Your task to perform on an android device: Is it going to rain tomorrow? Image 0: 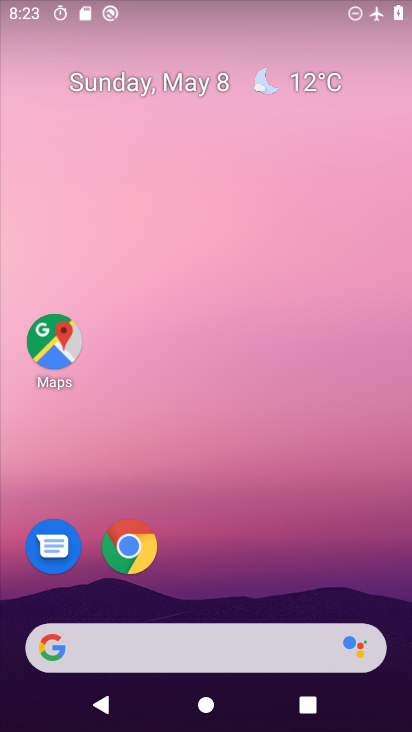
Step 0: click (323, 72)
Your task to perform on an android device: Is it going to rain tomorrow? Image 1: 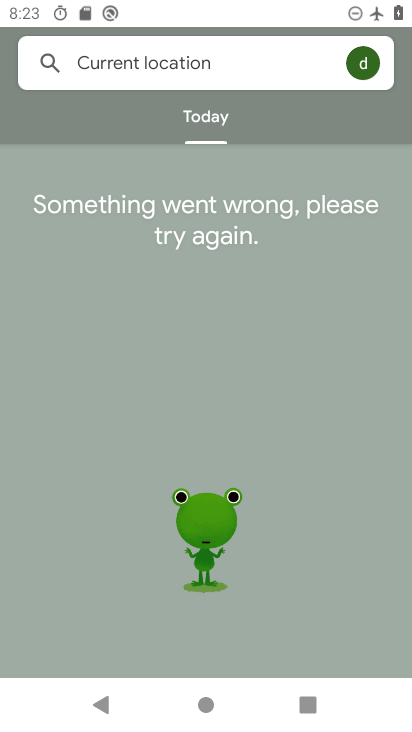
Step 1: task complete